Your task to perform on an android device: turn off location Image 0: 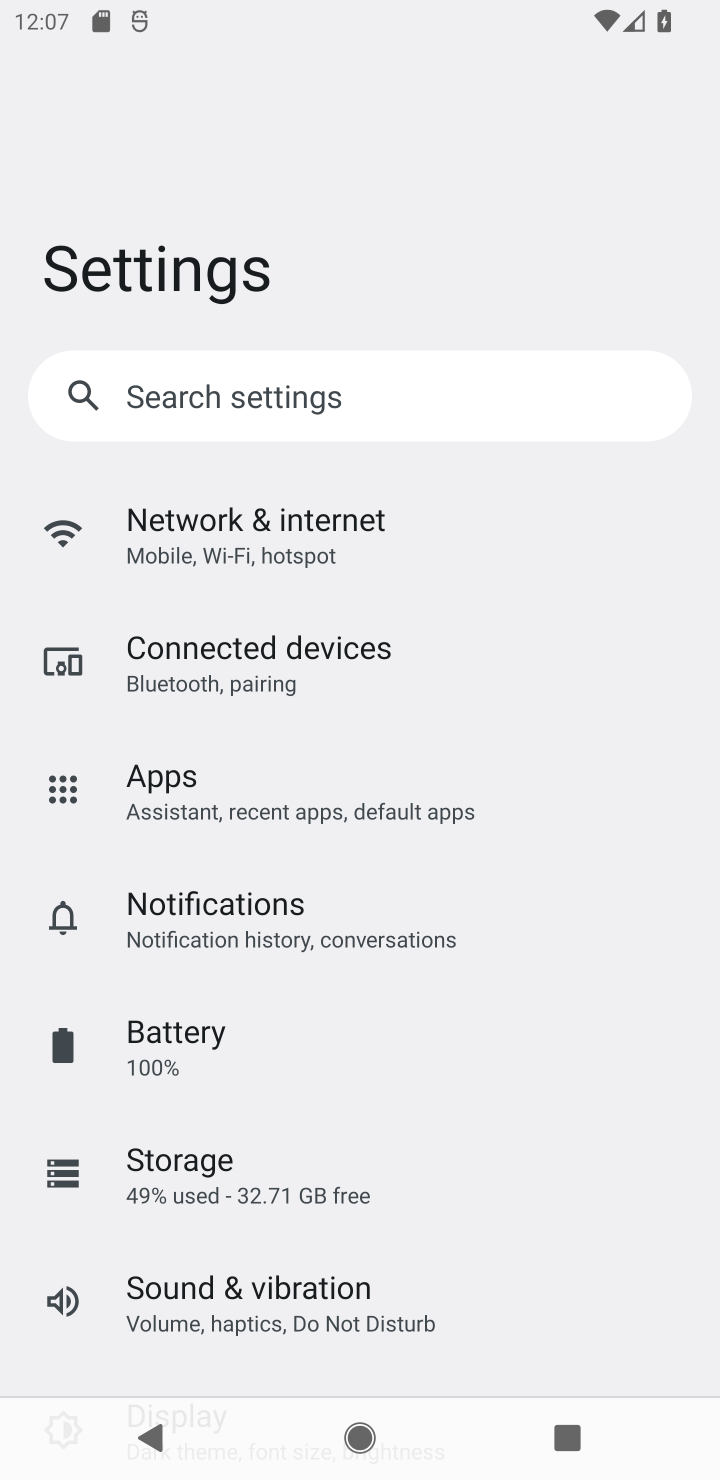
Step 0: press home button
Your task to perform on an android device: turn off location Image 1: 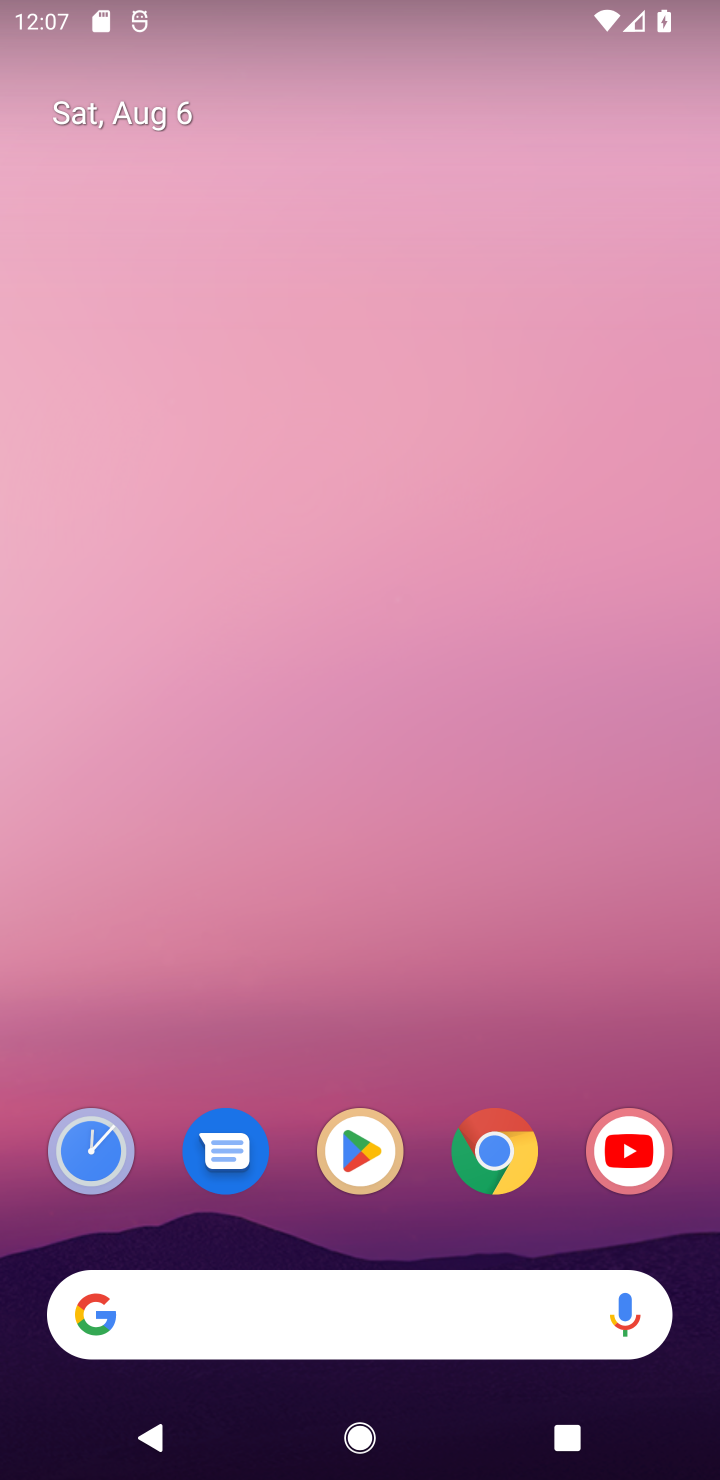
Step 1: drag from (284, 997) to (344, 249)
Your task to perform on an android device: turn off location Image 2: 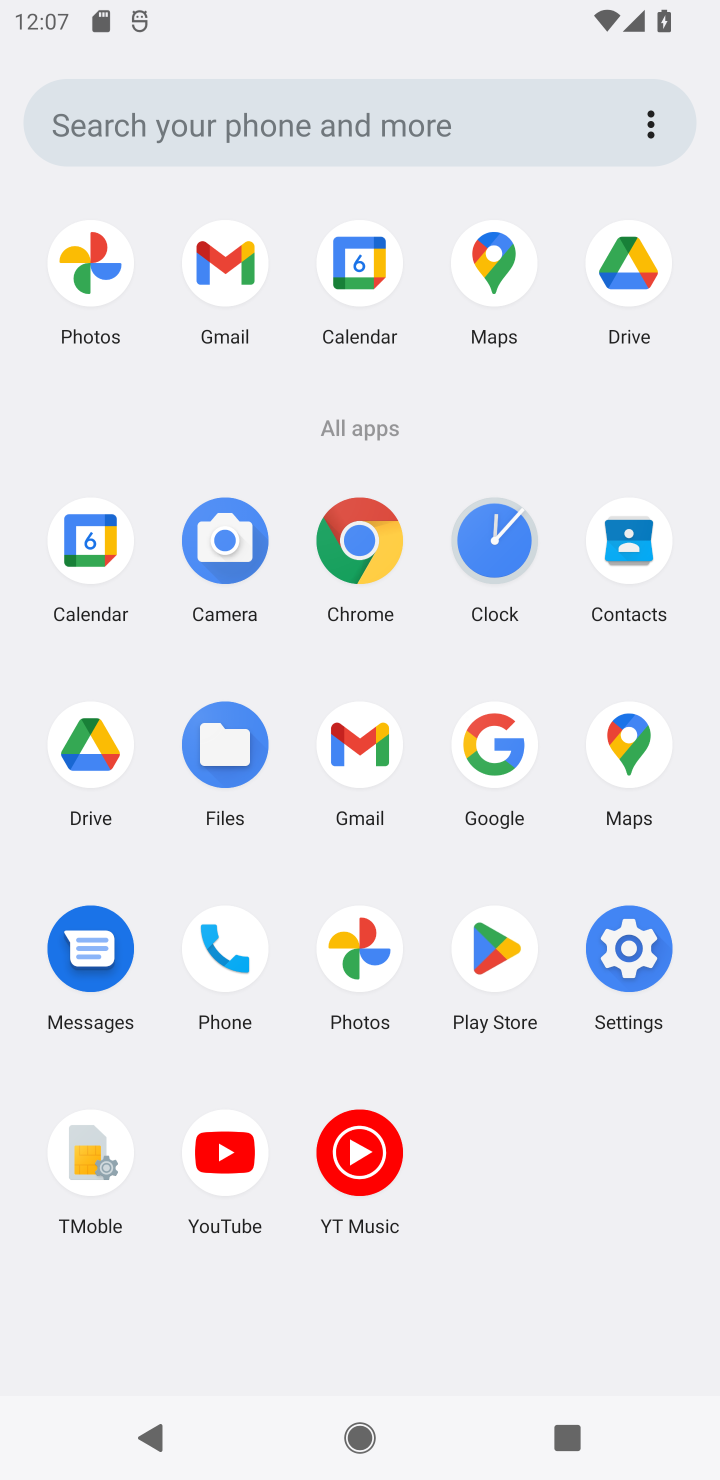
Step 2: click (631, 932)
Your task to perform on an android device: turn off location Image 3: 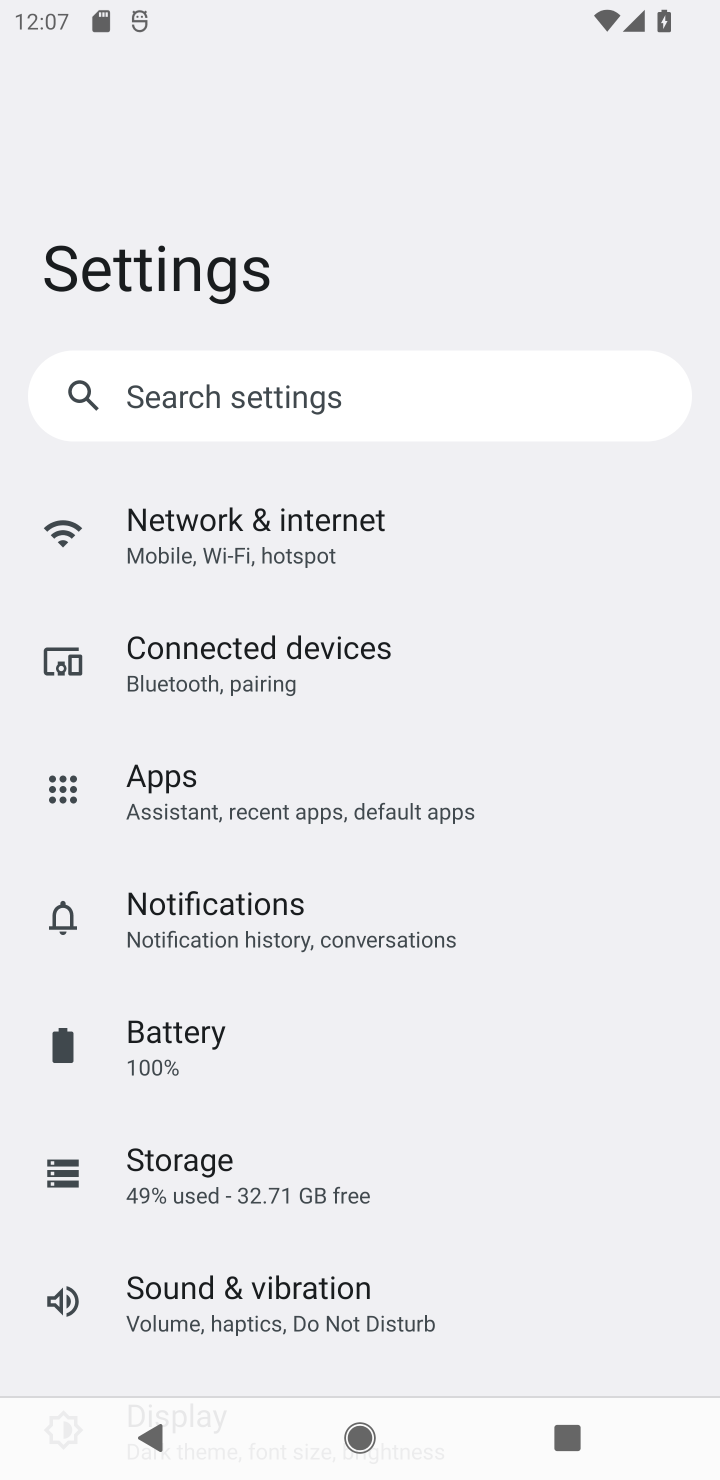
Step 3: drag from (373, 1163) to (375, 506)
Your task to perform on an android device: turn off location Image 4: 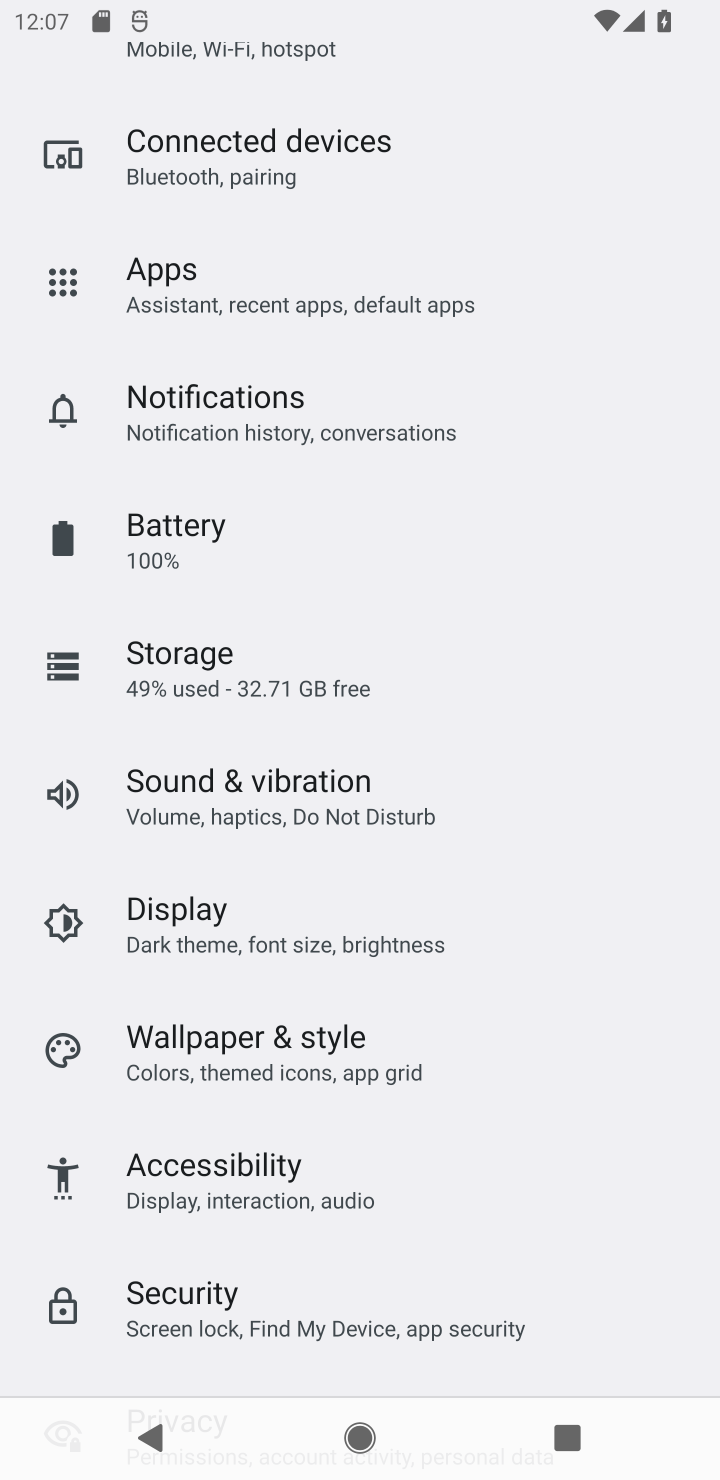
Step 4: drag from (294, 1232) to (337, 695)
Your task to perform on an android device: turn off location Image 5: 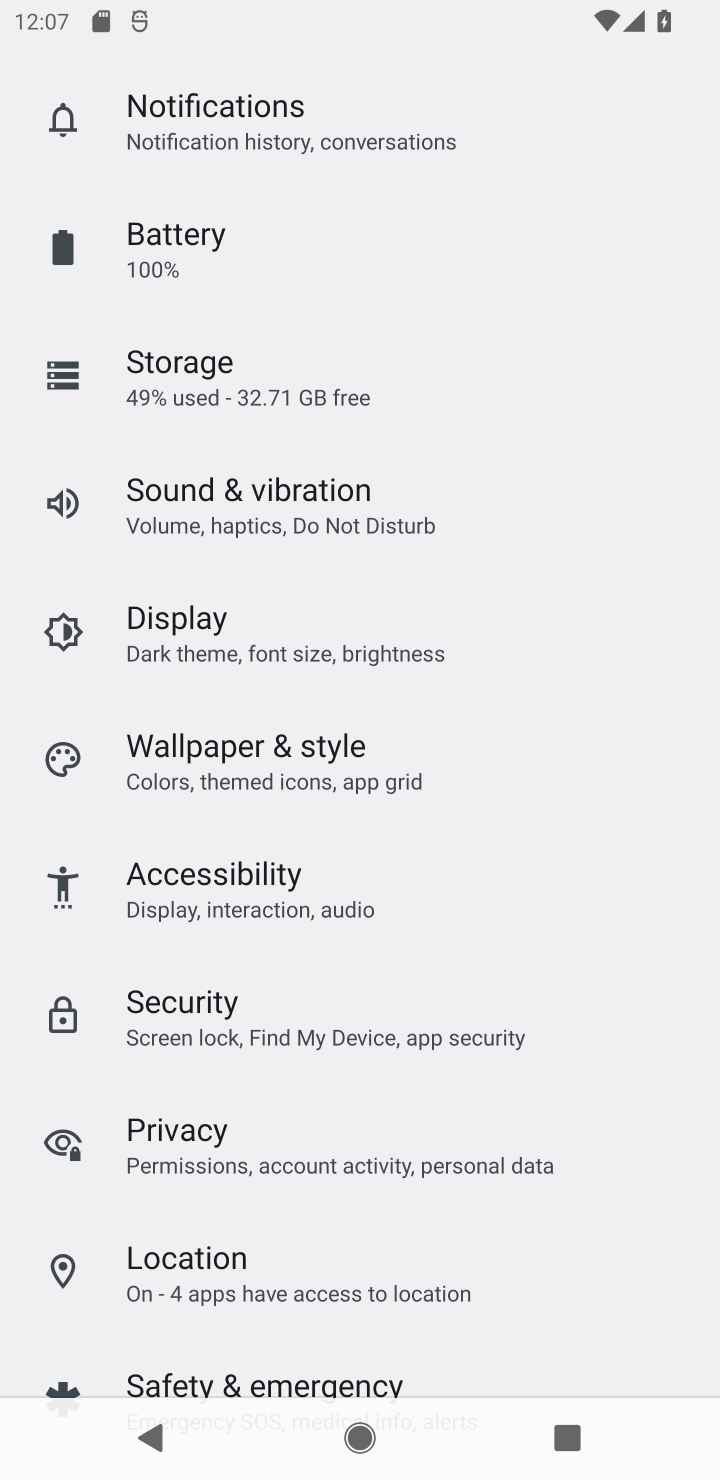
Step 5: click (233, 1256)
Your task to perform on an android device: turn off location Image 6: 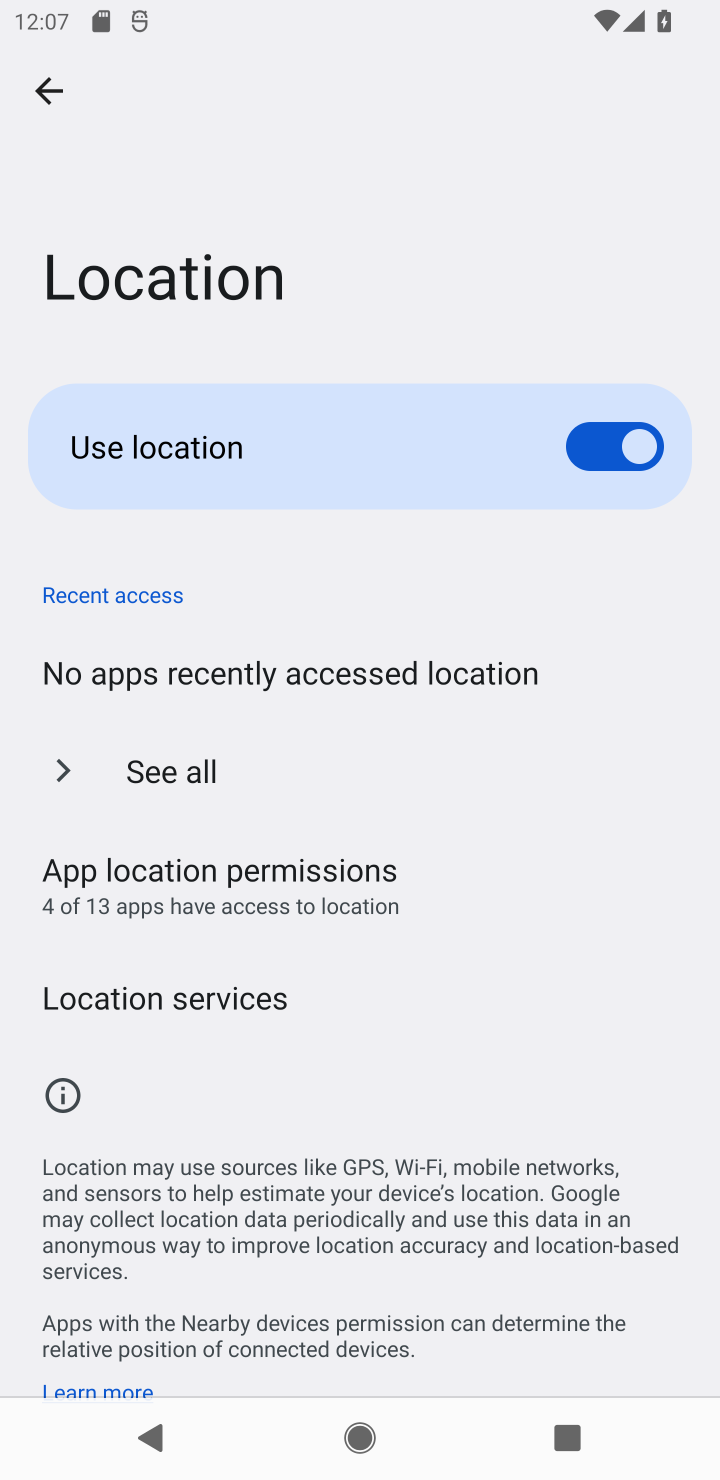
Step 6: click (658, 437)
Your task to perform on an android device: turn off location Image 7: 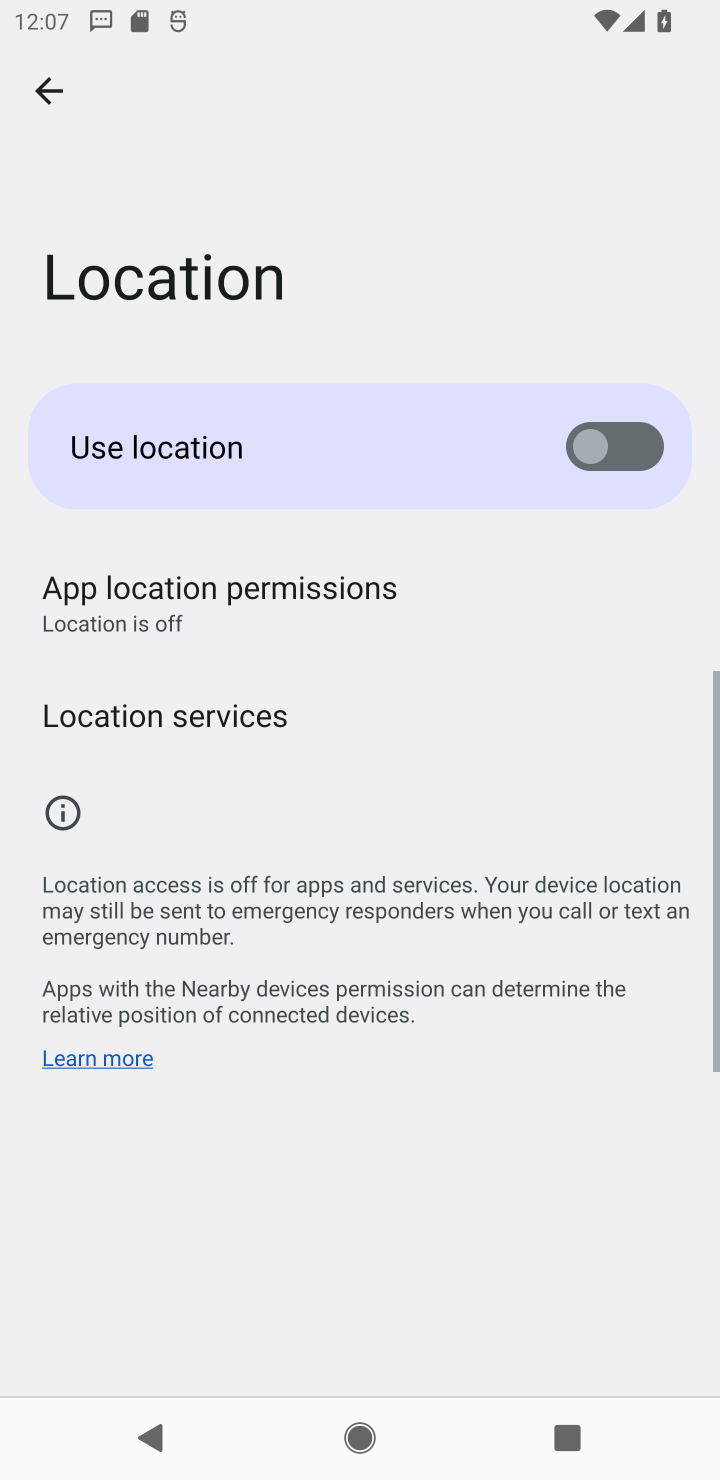
Step 7: task complete